Your task to perform on an android device: check the backup settings in the google photos Image 0: 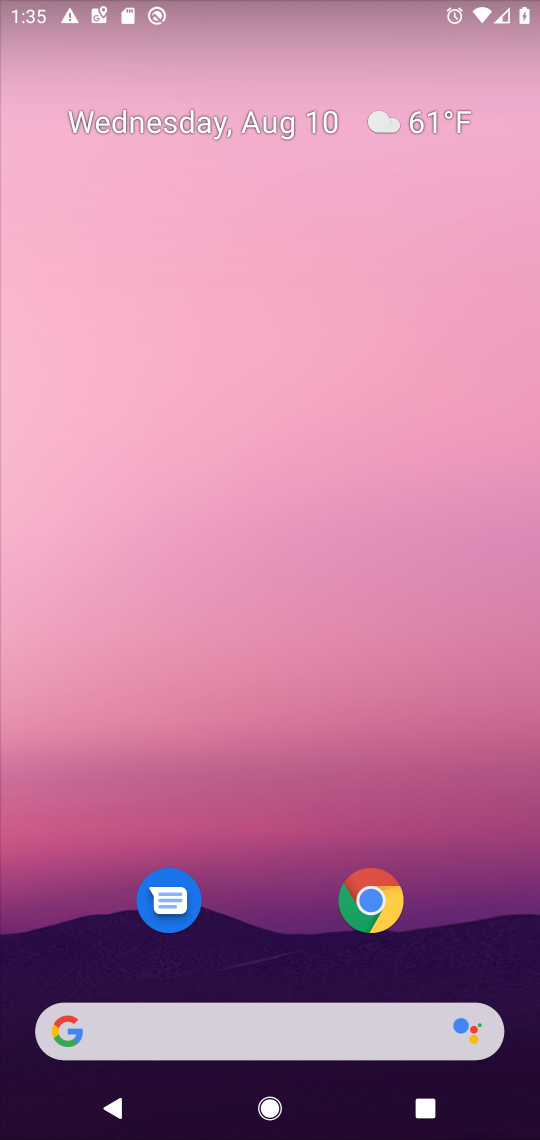
Step 0: drag from (280, 843) to (321, 11)
Your task to perform on an android device: check the backup settings in the google photos Image 1: 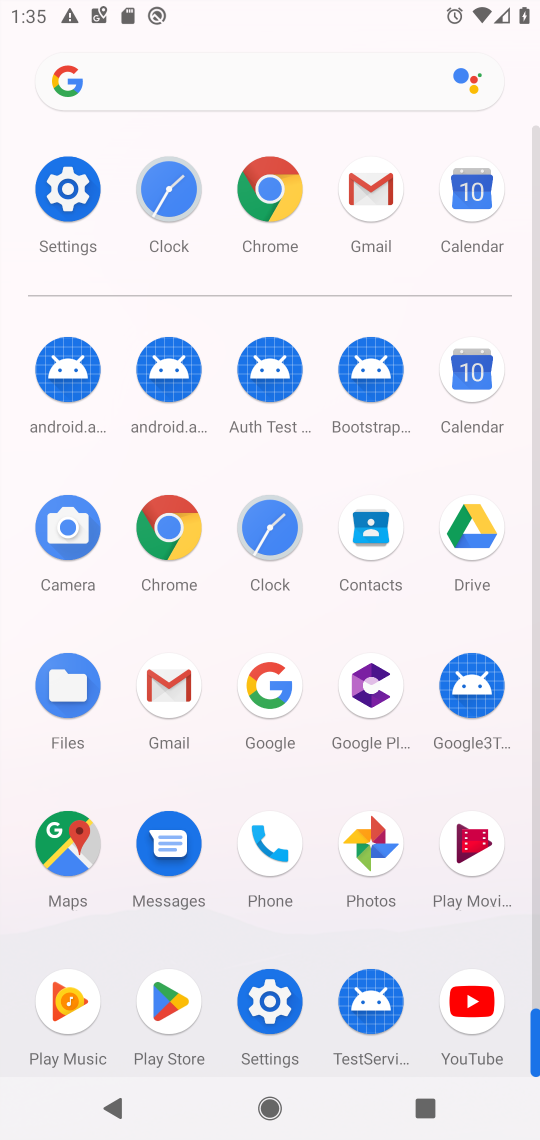
Step 1: click (365, 842)
Your task to perform on an android device: check the backup settings in the google photos Image 2: 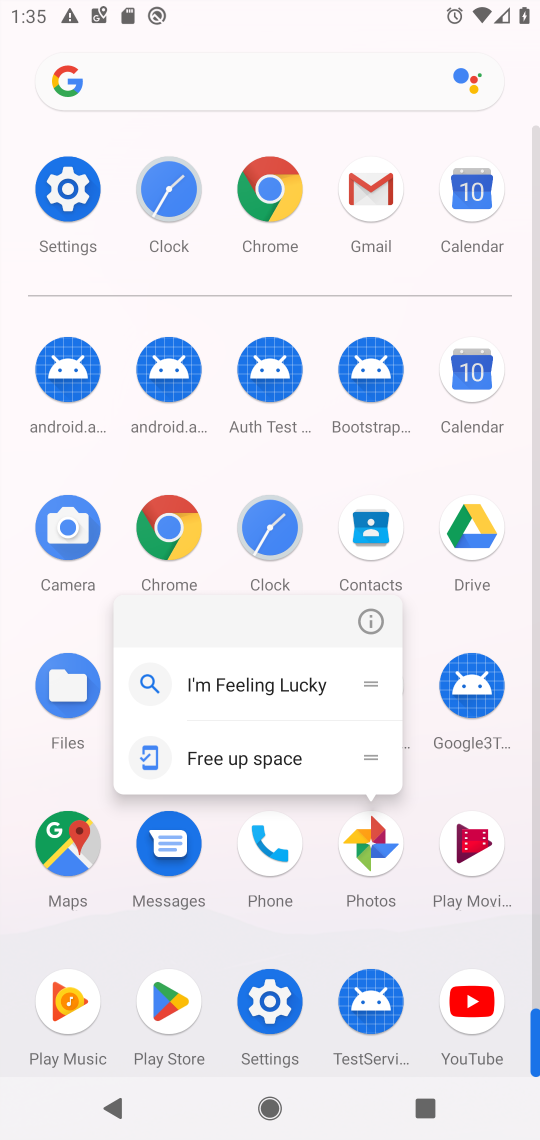
Step 2: click (365, 842)
Your task to perform on an android device: check the backup settings in the google photos Image 3: 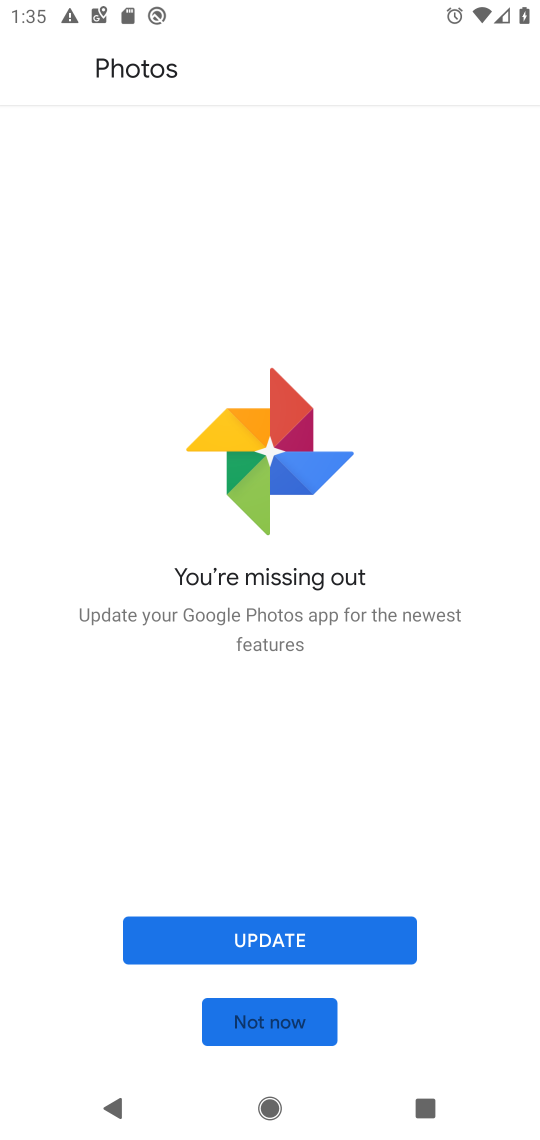
Step 3: click (311, 1030)
Your task to perform on an android device: check the backup settings in the google photos Image 4: 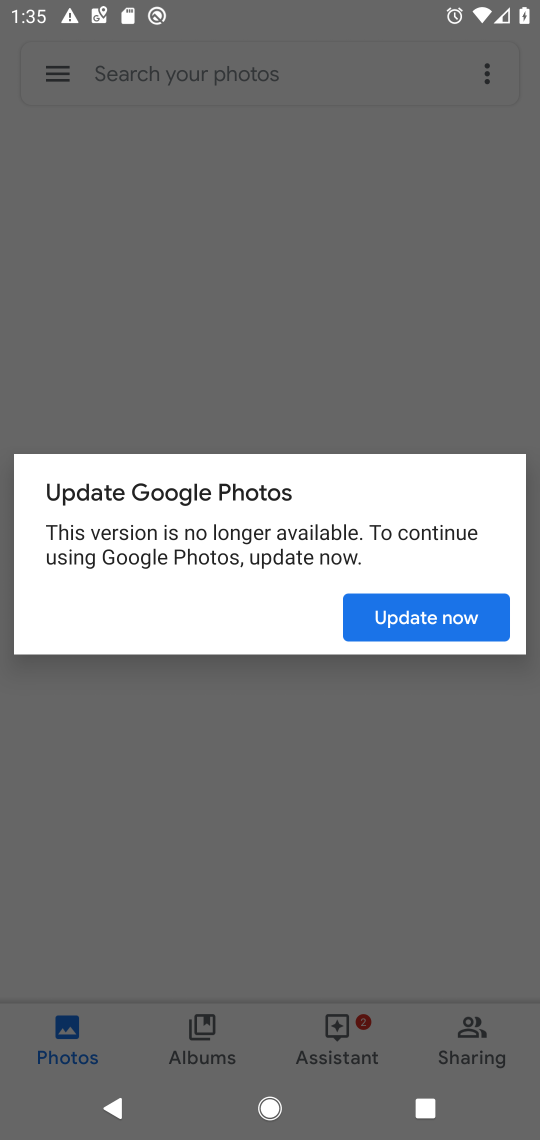
Step 4: click (422, 624)
Your task to perform on an android device: check the backup settings in the google photos Image 5: 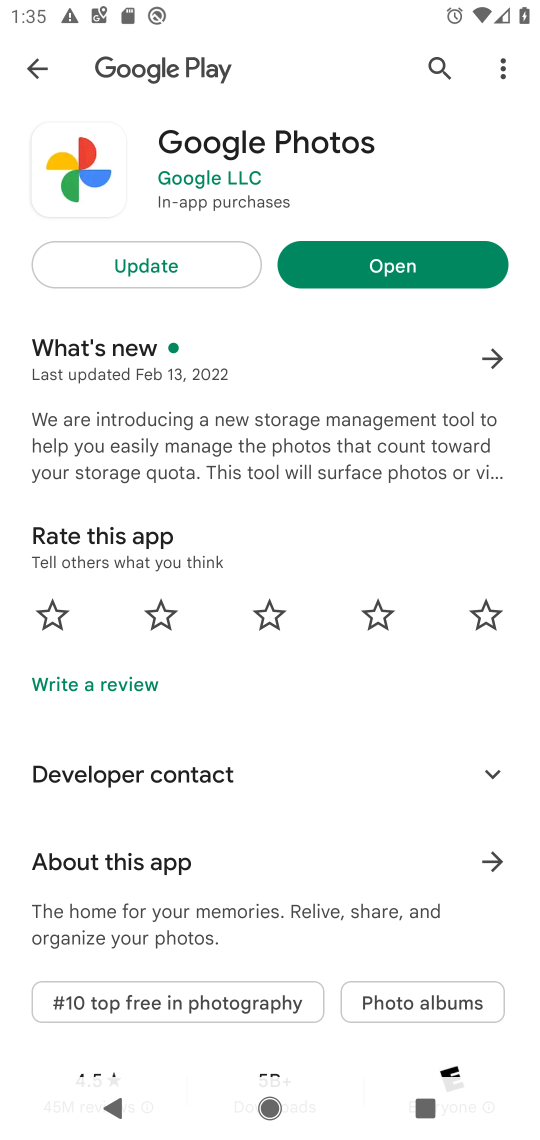
Step 5: click (423, 265)
Your task to perform on an android device: check the backup settings in the google photos Image 6: 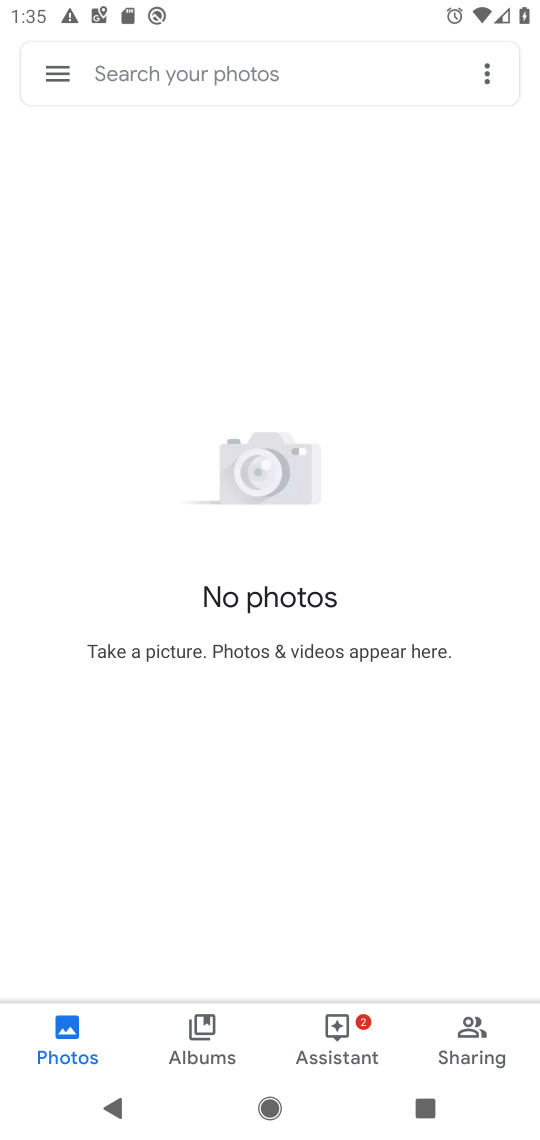
Step 6: click (51, 71)
Your task to perform on an android device: check the backup settings in the google photos Image 7: 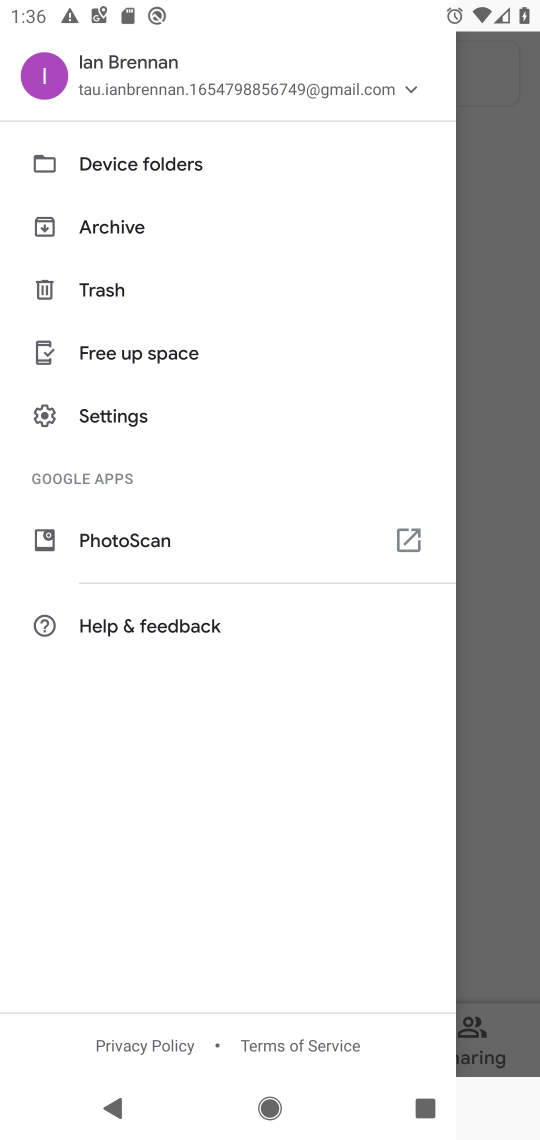
Step 7: click (119, 409)
Your task to perform on an android device: check the backup settings in the google photos Image 8: 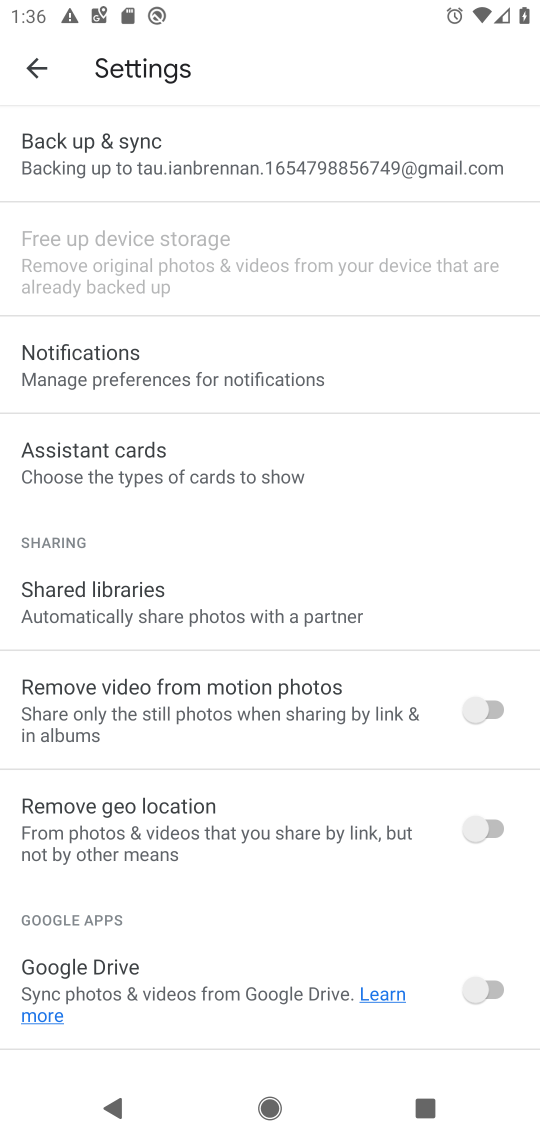
Step 8: click (171, 131)
Your task to perform on an android device: check the backup settings in the google photos Image 9: 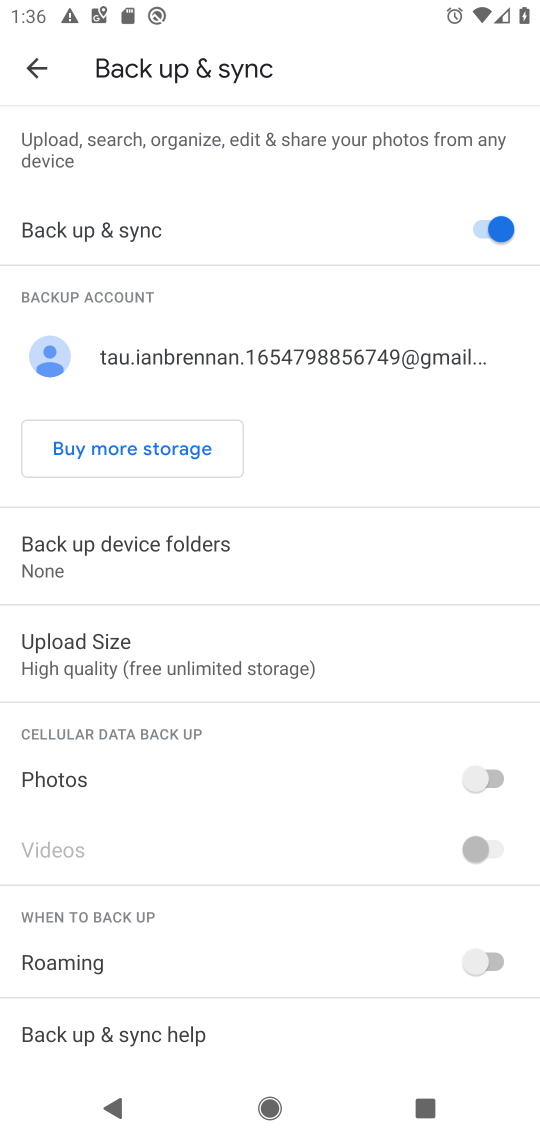
Step 9: task complete